Your task to perform on an android device: turn on showing notifications on the lock screen Image 0: 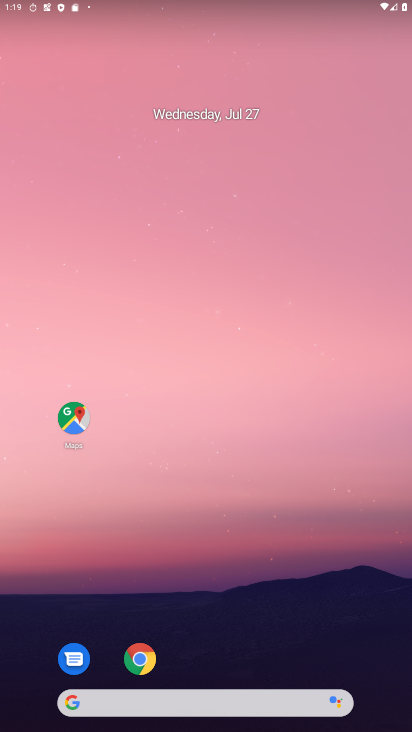
Step 0: press home button
Your task to perform on an android device: turn on showing notifications on the lock screen Image 1: 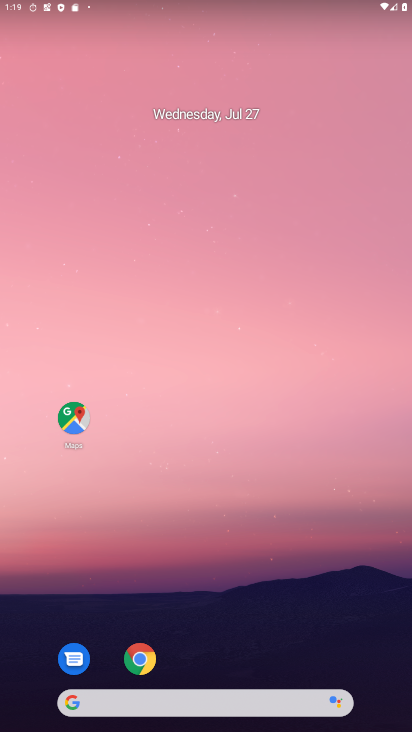
Step 1: drag from (209, 670) to (196, 49)
Your task to perform on an android device: turn on showing notifications on the lock screen Image 2: 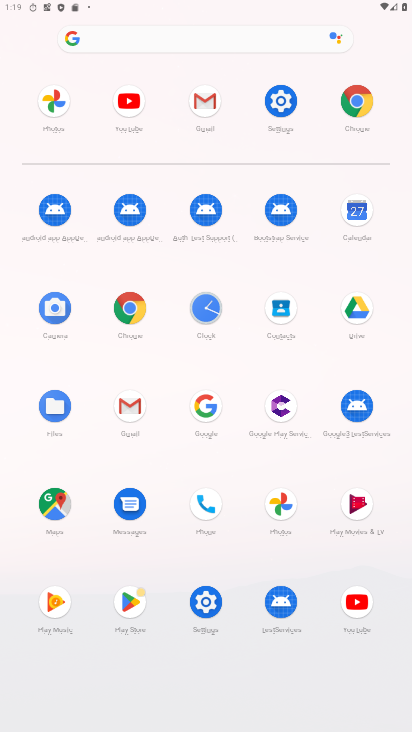
Step 2: click (281, 98)
Your task to perform on an android device: turn on showing notifications on the lock screen Image 3: 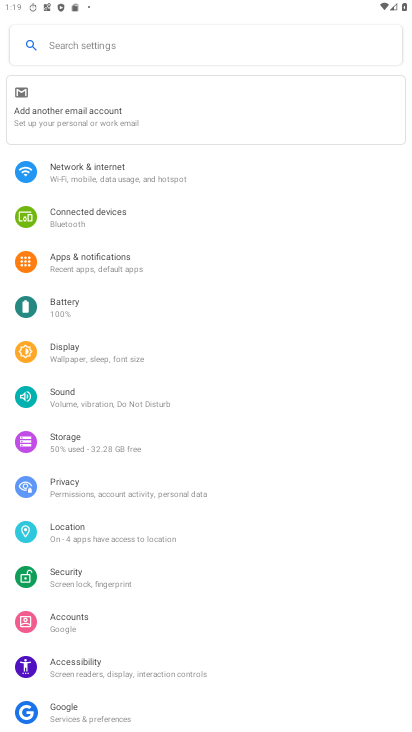
Step 3: click (146, 257)
Your task to perform on an android device: turn on showing notifications on the lock screen Image 4: 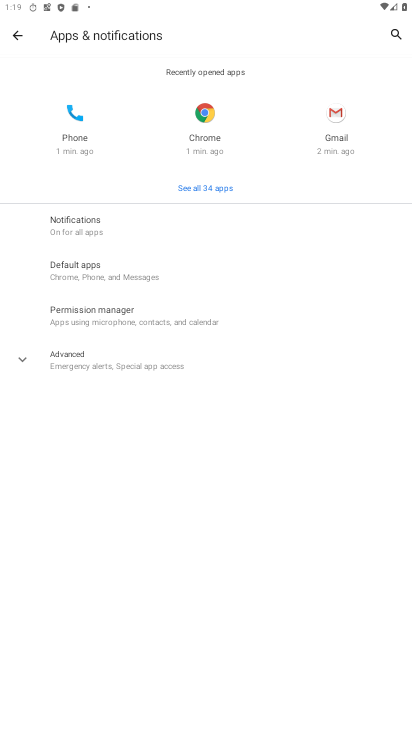
Step 4: click (39, 220)
Your task to perform on an android device: turn on showing notifications on the lock screen Image 5: 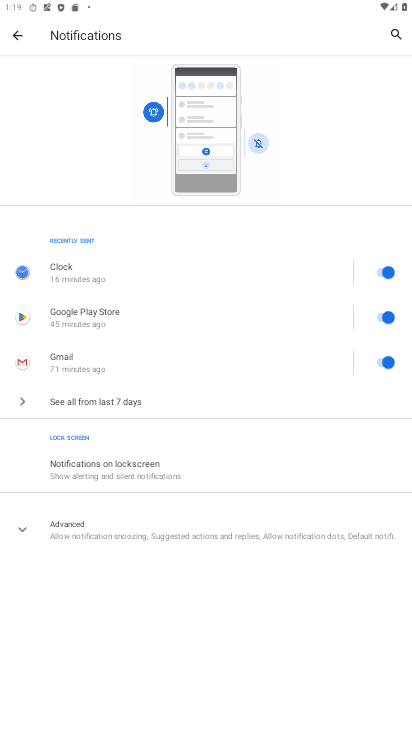
Step 5: click (183, 466)
Your task to perform on an android device: turn on showing notifications on the lock screen Image 6: 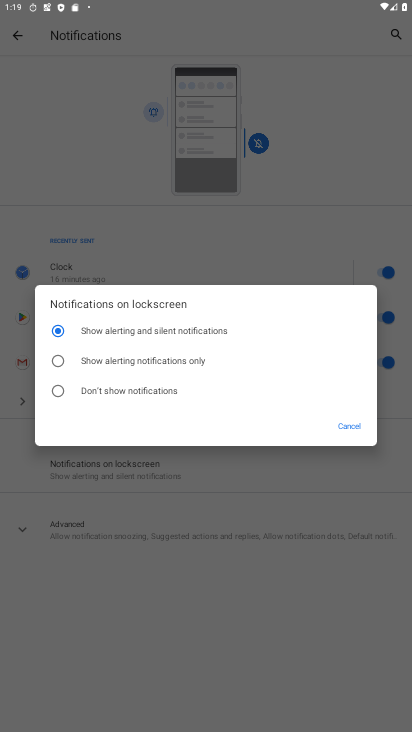
Step 6: click (56, 358)
Your task to perform on an android device: turn on showing notifications on the lock screen Image 7: 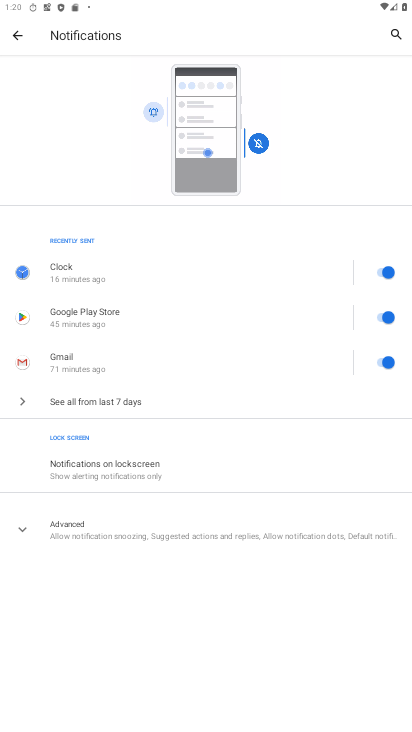
Step 7: task complete